Your task to perform on an android device: change the clock display to show seconds Image 0: 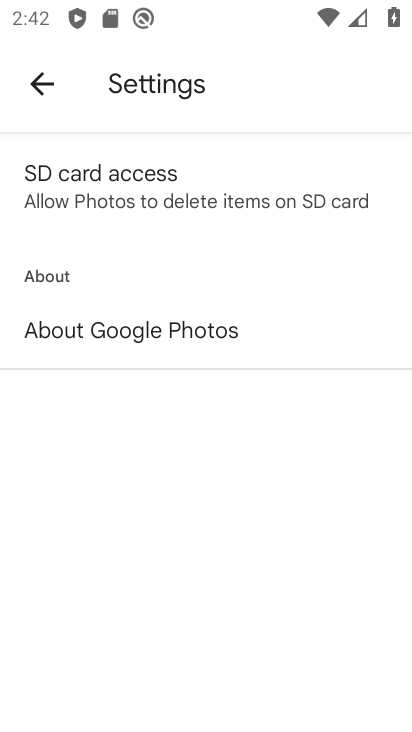
Step 0: press home button
Your task to perform on an android device: change the clock display to show seconds Image 1: 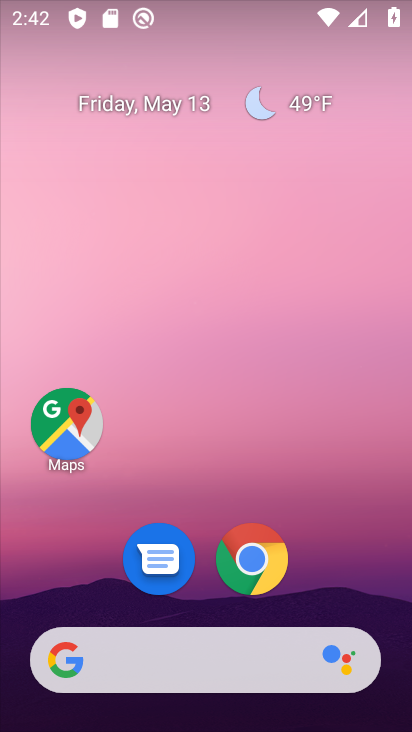
Step 1: drag from (395, 646) to (312, 23)
Your task to perform on an android device: change the clock display to show seconds Image 2: 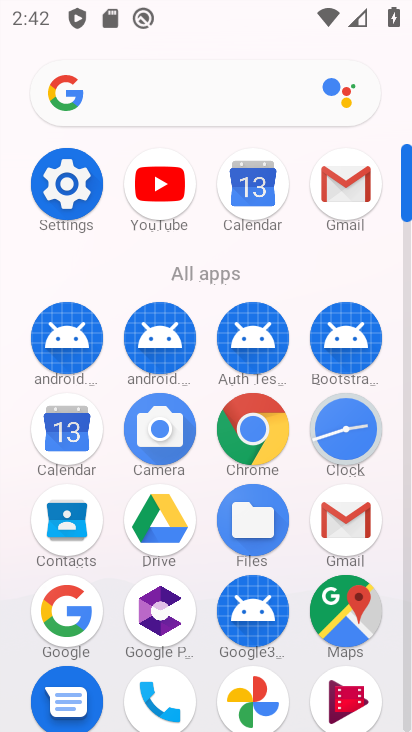
Step 2: click (339, 421)
Your task to perform on an android device: change the clock display to show seconds Image 3: 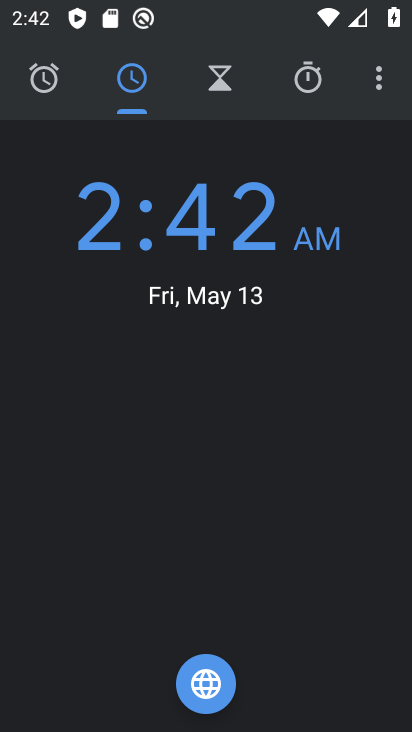
Step 3: click (373, 88)
Your task to perform on an android device: change the clock display to show seconds Image 4: 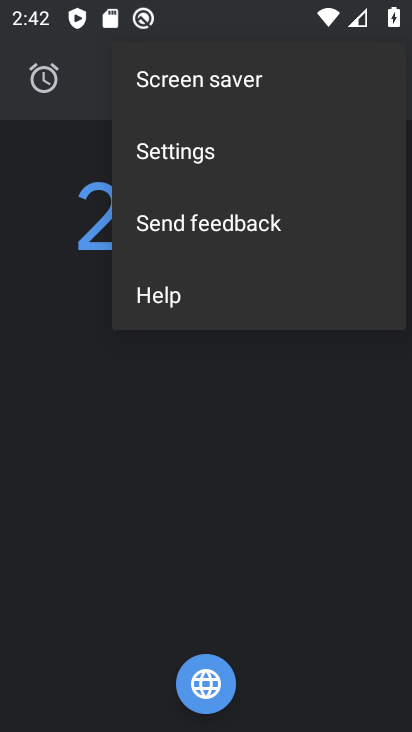
Step 4: click (161, 139)
Your task to perform on an android device: change the clock display to show seconds Image 5: 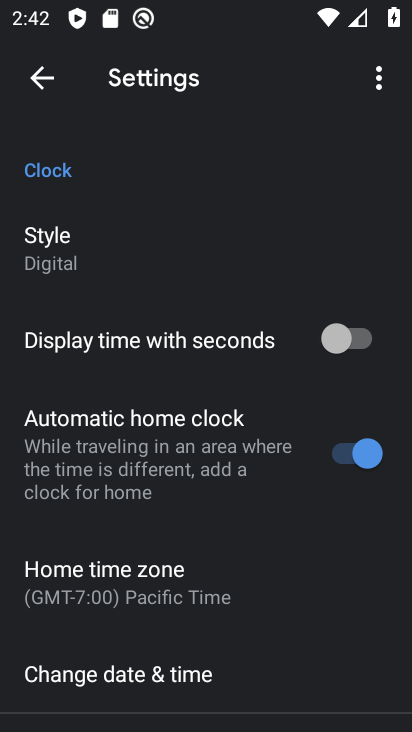
Step 5: click (356, 346)
Your task to perform on an android device: change the clock display to show seconds Image 6: 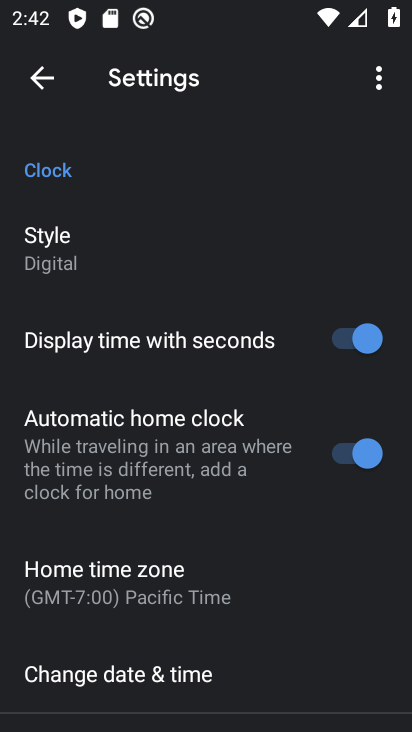
Step 6: task complete